Your task to perform on an android device: add a contact Image 0: 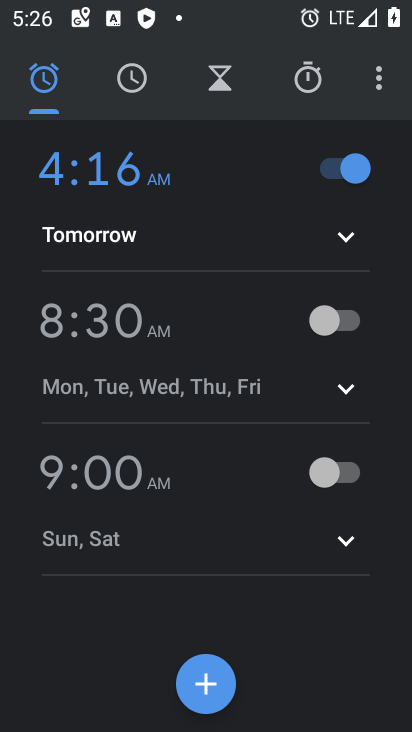
Step 0: press home button
Your task to perform on an android device: add a contact Image 1: 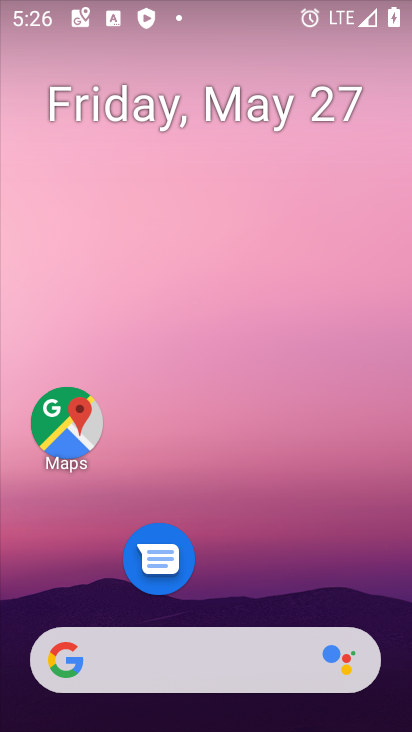
Step 1: drag from (300, 663) to (297, 13)
Your task to perform on an android device: add a contact Image 2: 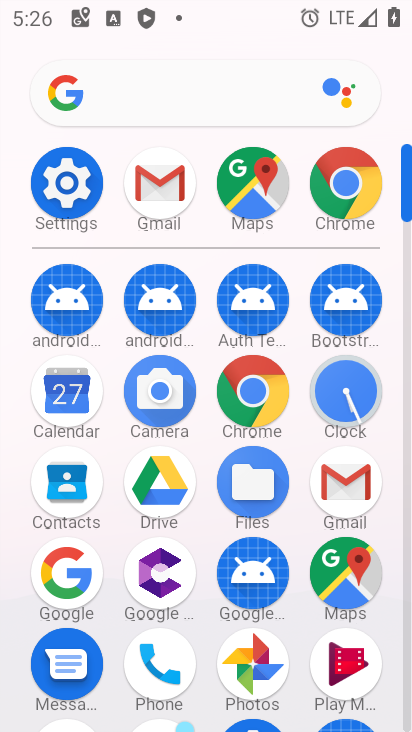
Step 2: click (47, 491)
Your task to perform on an android device: add a contact Image 3: 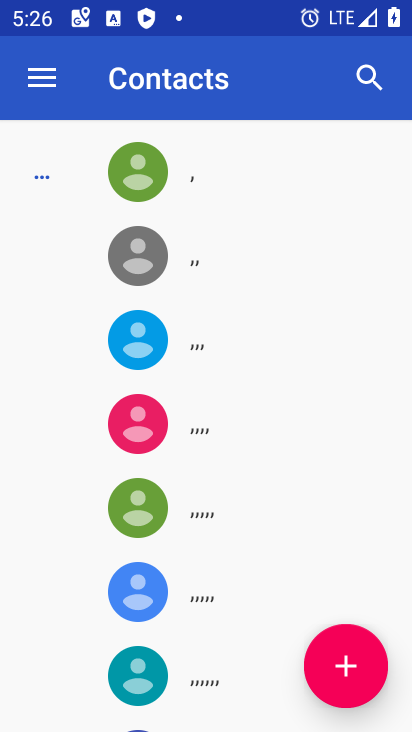
Step 3: click (363, 667)
Your task to perform on an android device: add a contact Image 4: 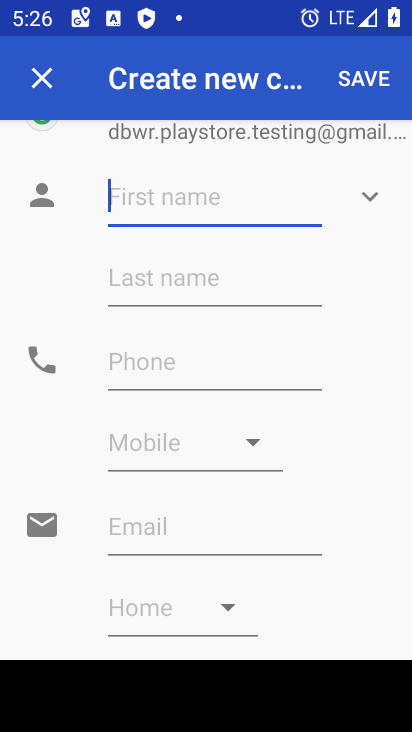
Step 4: type "jfkjjhjhkjf"
Your task to perform on an android device: add a contact Image 5: 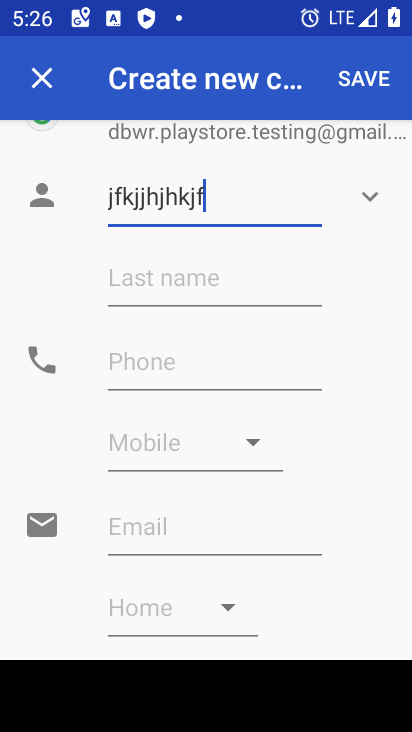
Step 5: click (188, 366)
Your task to perform on an android device: add a contact Image 6: 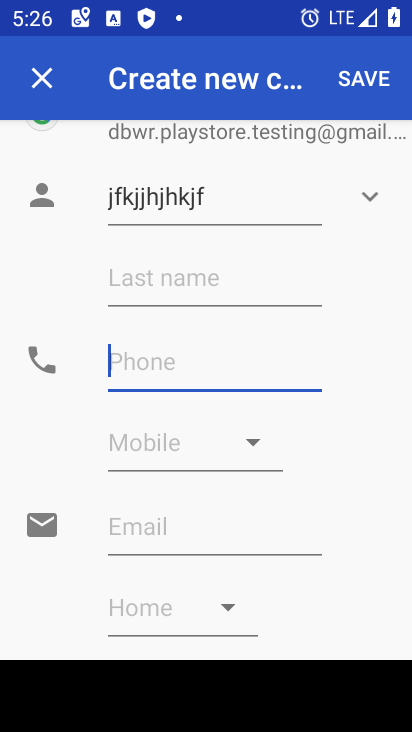
Step 6: type "98766667888"
Your task to perform on an android device: add a contact Image 7: 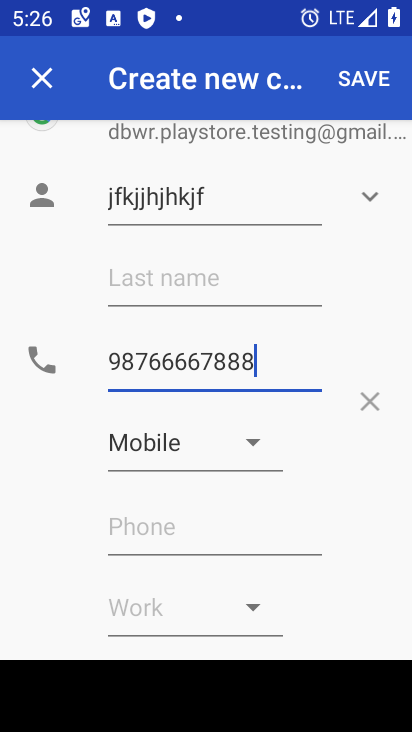
Step 7: click (345, 66)
Your task to perform on an android device: add a contact Image 8: 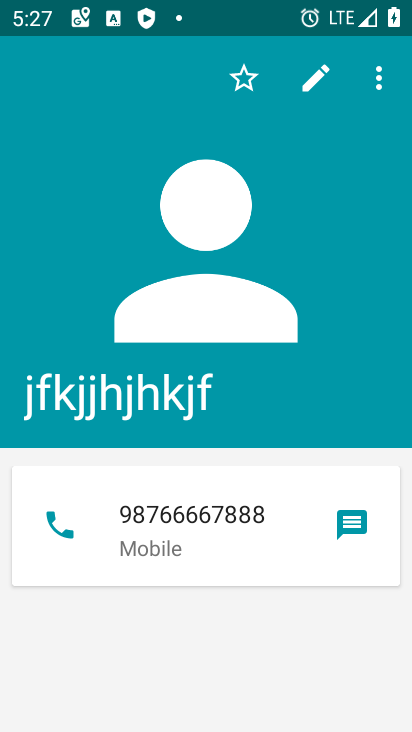
Step 8: task complete